Your task to perform on an android device: change the clock style Image 0: 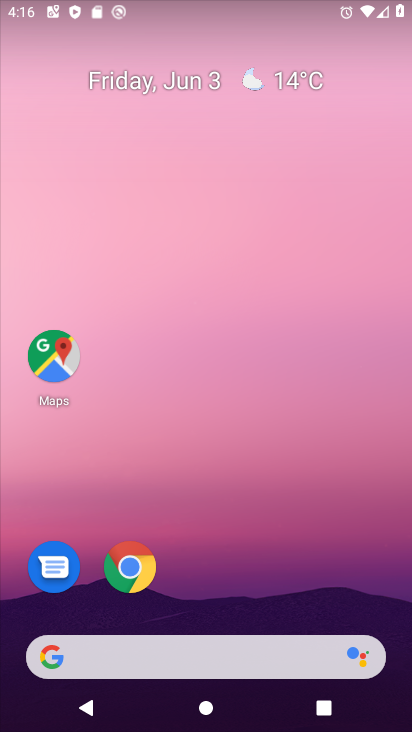
Step 0: drag from (207, 658) to (213, 205)
Your task to perform on an android device: change the clock style Image 1: 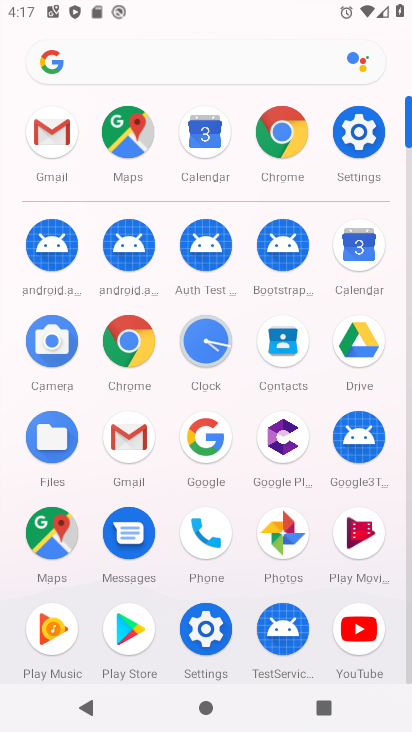
Step 1: click (221, 357)
Your task to perform on an android device: change the clock style Image 2: 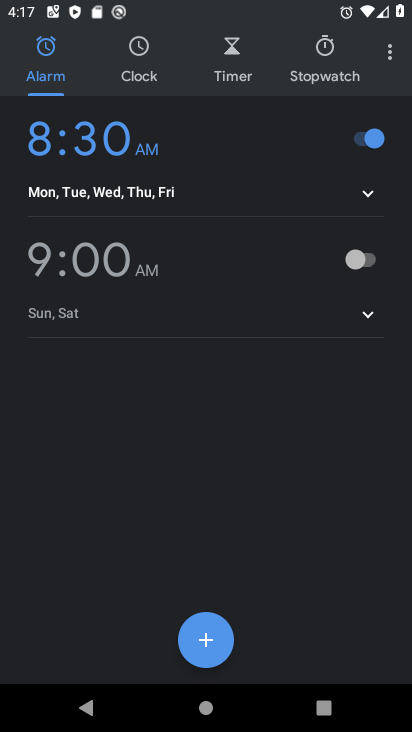
Step 2: click (378, 66)
Your task to perform on an android device: change the clock style Image 3: 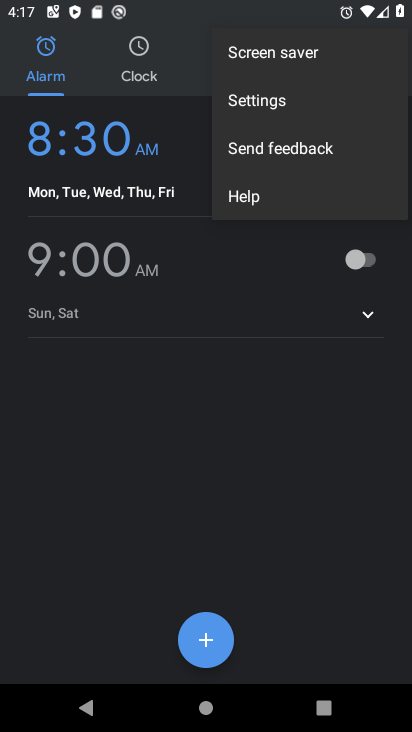
Step 3: click (243, 111)
Your task to perform on an android device: change the clock style Image 4: 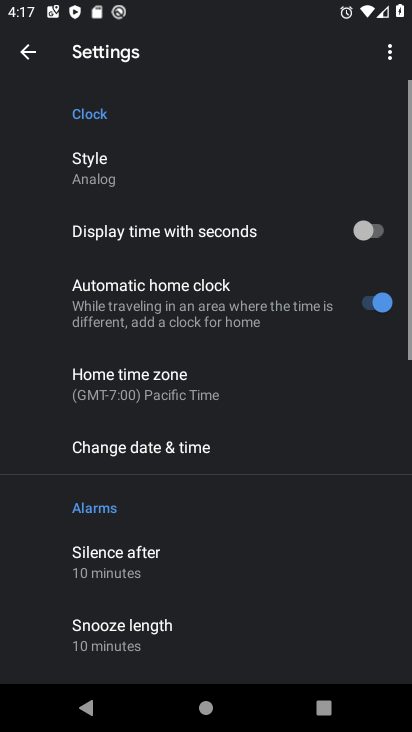
Step 4: click (148, 184)
Your task to perform on an android device: change the clock style Image 5: 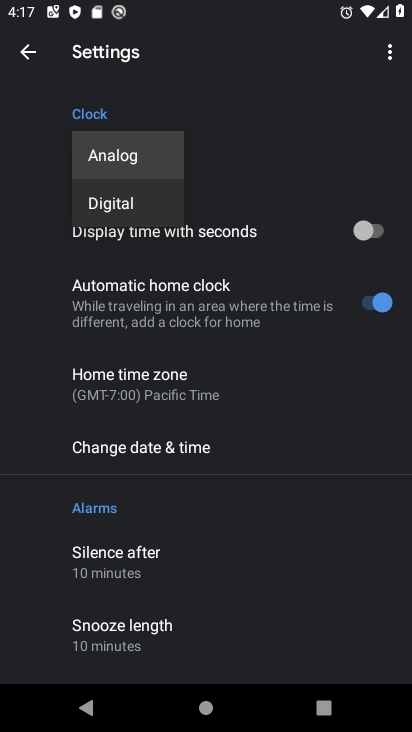
Step 5: click (126, 209)
Your task to perform on an android device: change the clock style Image 6: 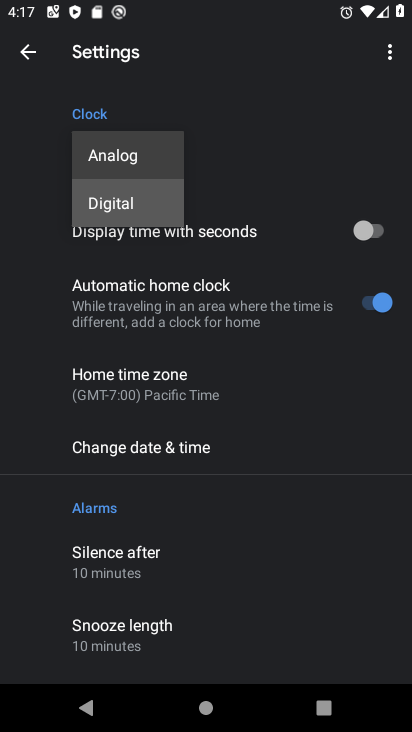
Step 6: click (98, 161)
Your task to perform on an android device: change the clock style Image 7: 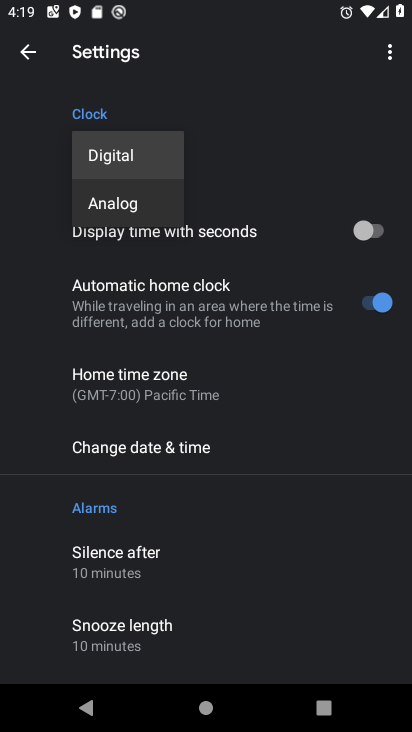
Step 7: task complete